Your task to perform on an android device: open a bookmark in the chrome app Image 0: 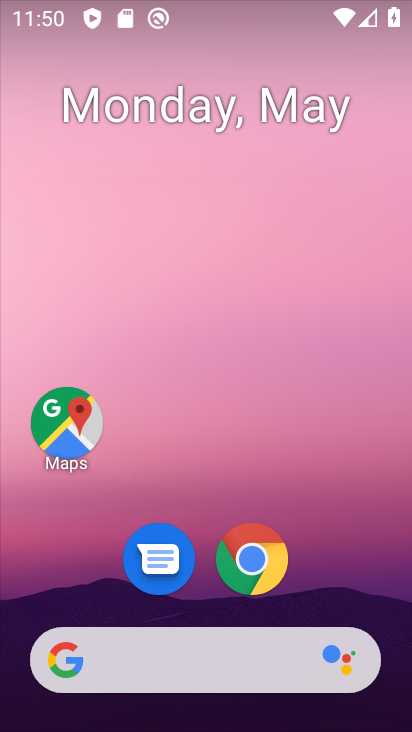
Step 0: click (250, 556)
Your task to perform on an android device: open a bookmark in the chrome app Image 1: 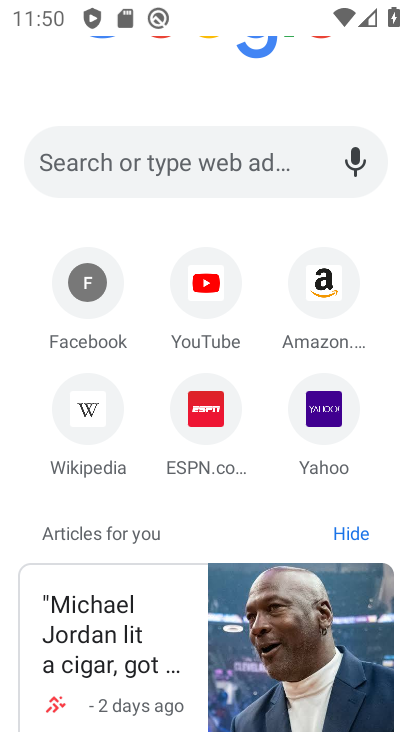
Step 1: drag from (320, 98) to (316, 517)
Your task to perform on an android device: open a bookmark in the chrome app Image 2: 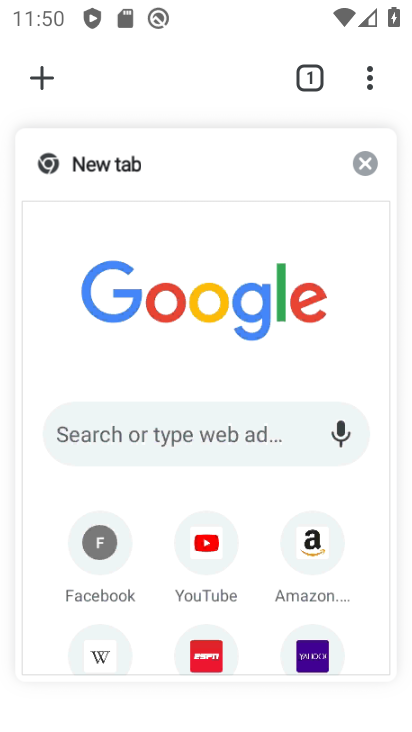
Step 2: click (234, 239)
Your task to perform on an android device: open a bookmark in the chrome app Image 3: 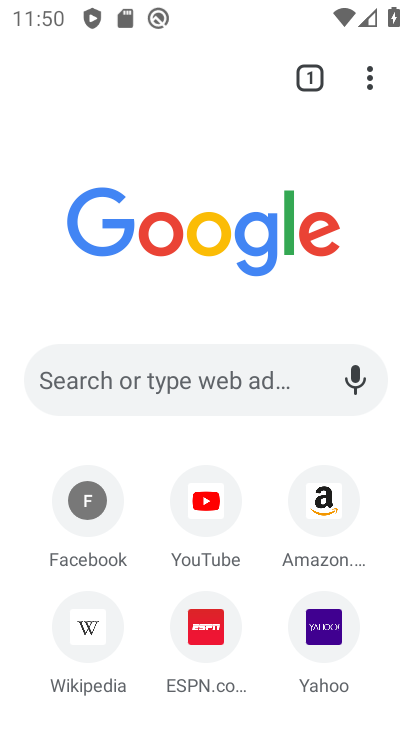
Step 3: click (376, 66)
Your task to perform on an android device: open a bookmark in the chrome app Image 4: 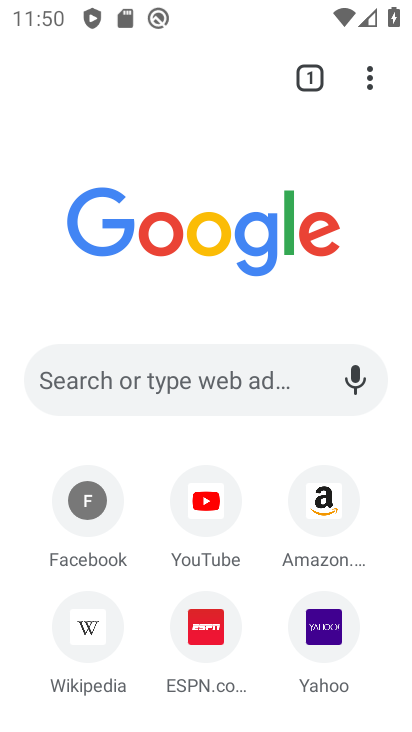
Step 4: click (368, 79)
Your task to perform on an android device: open a bookmark in the chrome app Image 5: 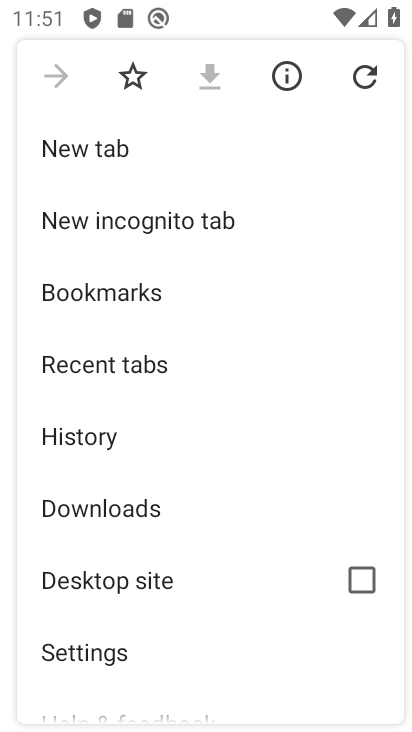
Step 5: click (176, 289)
Your task to perform on an android device: open a bookmark in the chrome app Image 6: 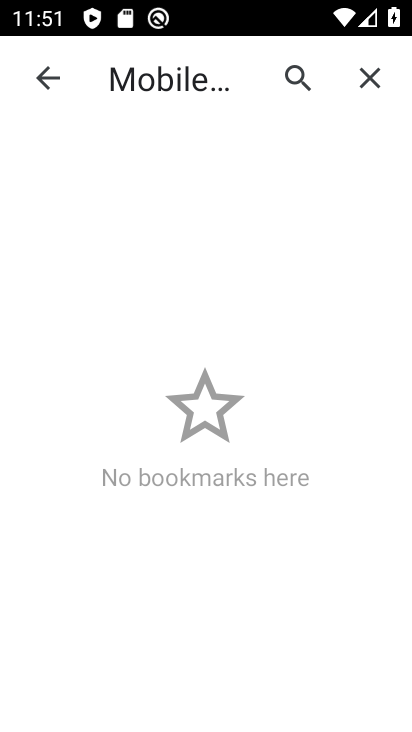
Step 6: task complete